Your task to perform on an android device: Go to Android settings Image 0: 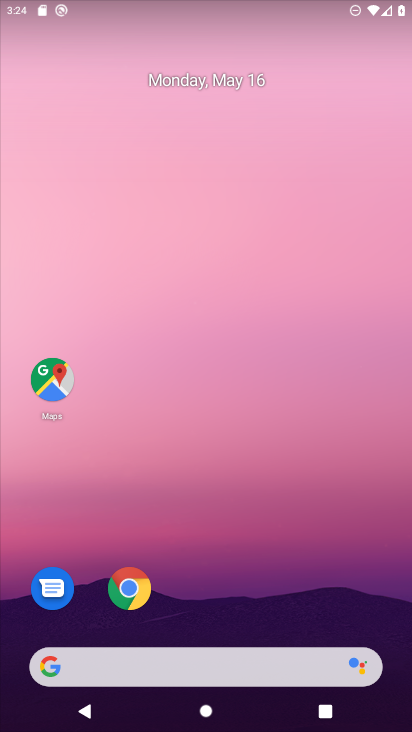
Step 0: drag from (267, 610) to (250, 5)
Your task to perform on an android device: Go to Android settings Image 1: 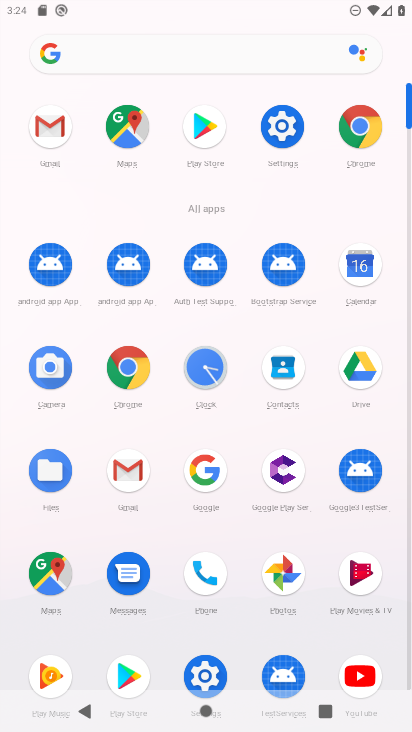
Step 1: click (273, 132)
Your task to perform on an android device: Go to Android settings Image 2: 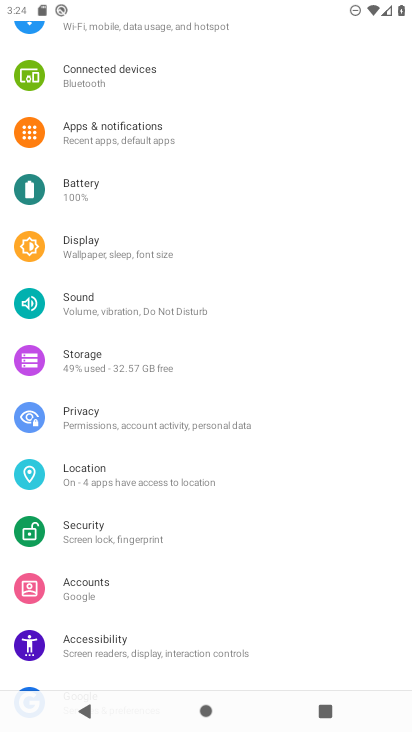
Step 2: task complete